Your task to perform on an android device: open app "Walmart Shopping & Grocery" (install if not already installed) and enter user name: "Hans@icloud.com" and password: "executing" Image 0: 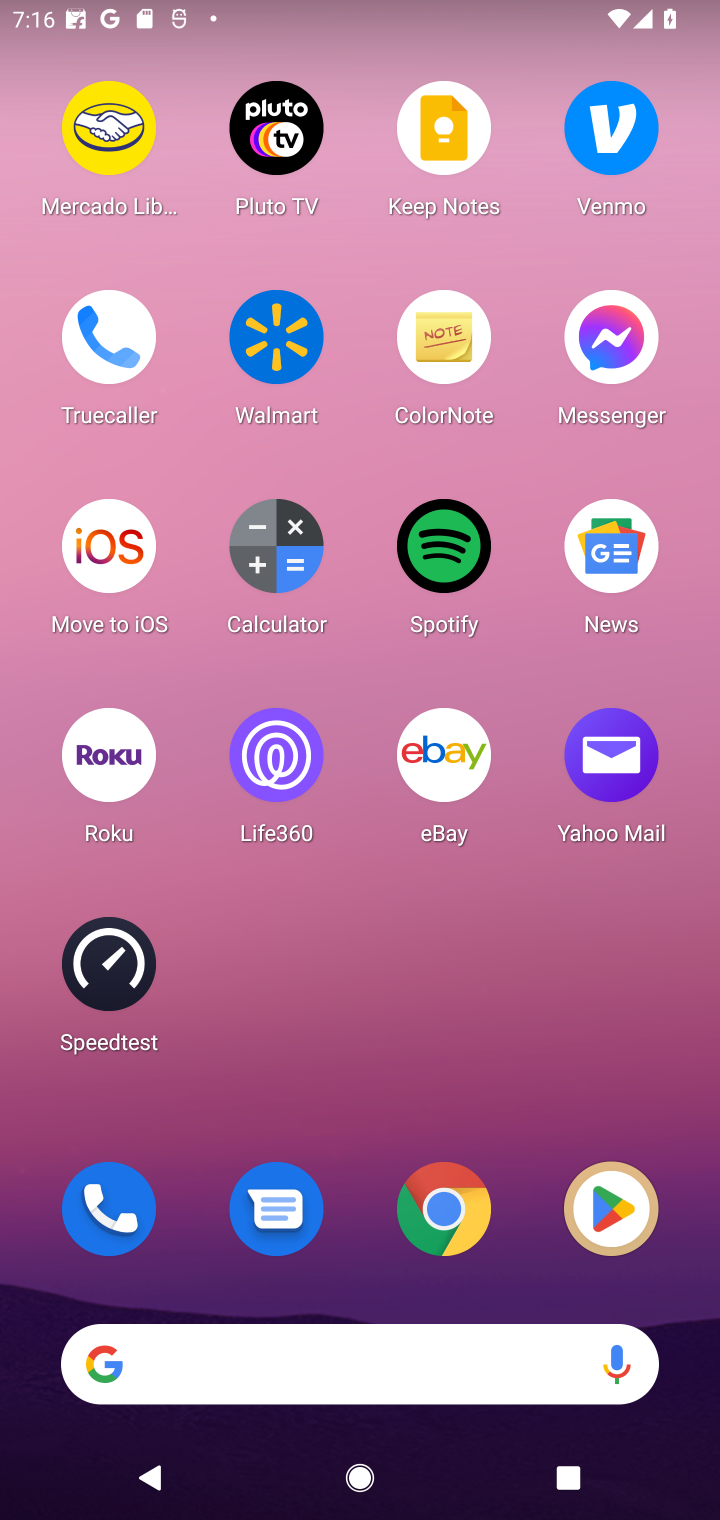
Step 0: click (630, 1256)
Your task to perform on an android device: open app "Walmart Shopping & Grocery" (install if not already installed) and enter user name: "Hans@icloud.com" and password: "executing" Image 1: 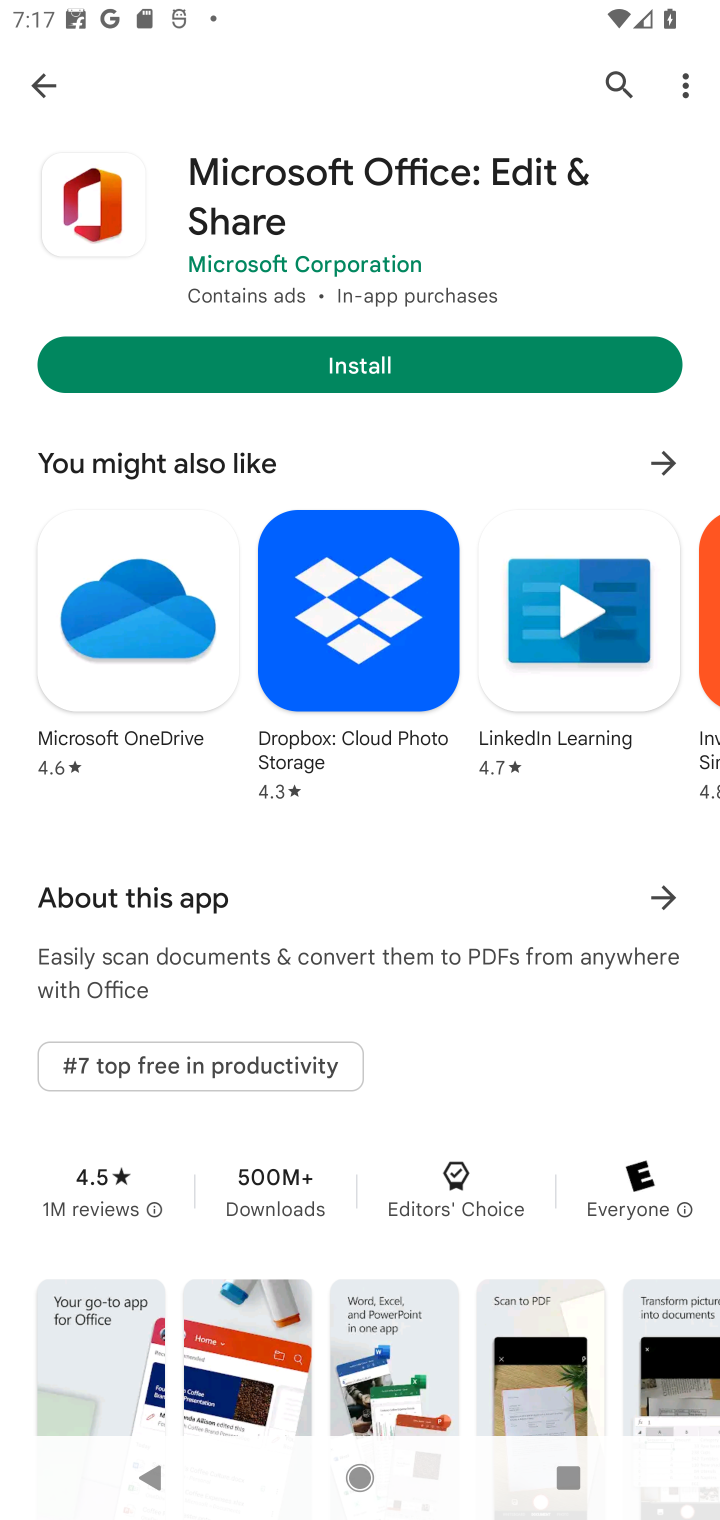
Step 1: click (430, 383)
Your task to perform on an android device: open app "Walmart Shopping & Grocery" (install if not already installed) and enter user name: "Hans@icloud.com" and password: "executing" Image 2: 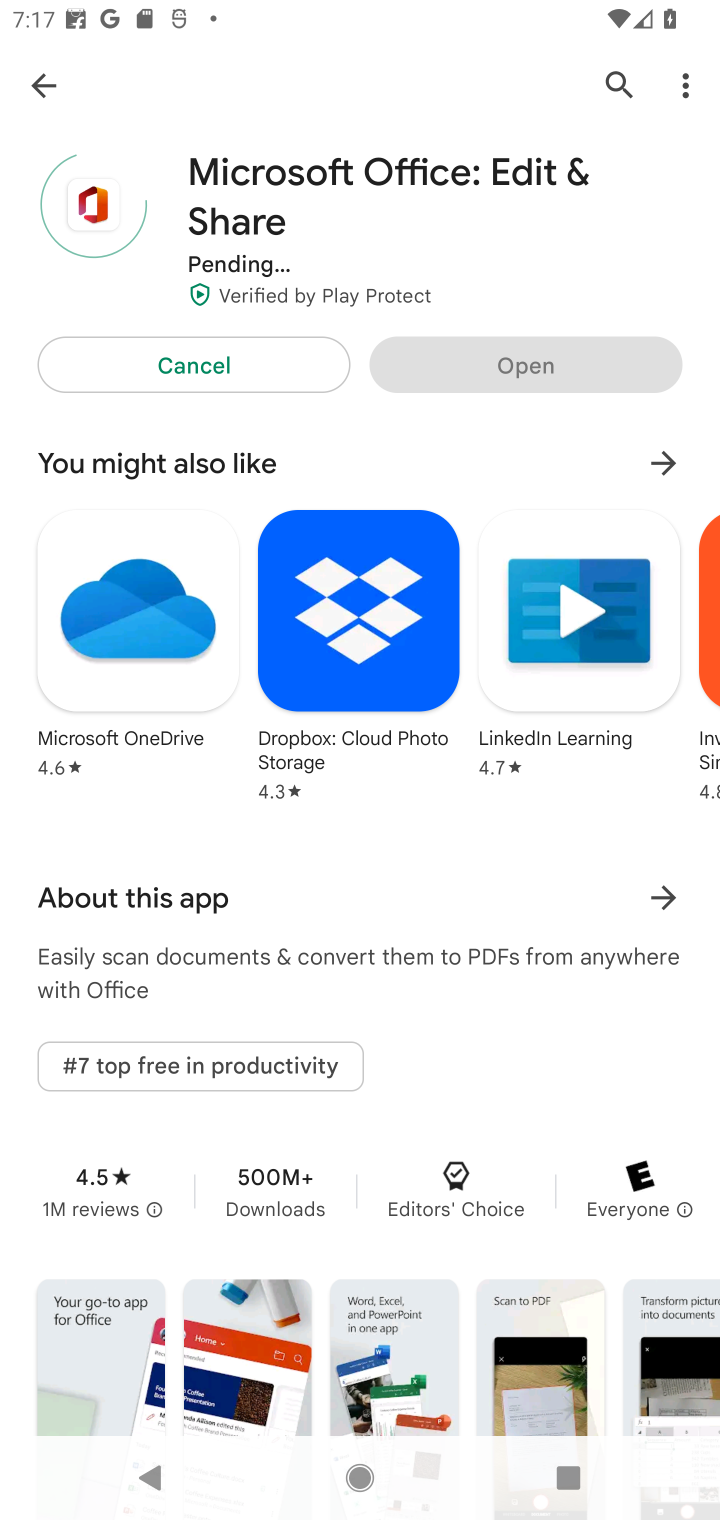
Step 2: click (621, 77)
Your task to perform on an android device: open app "Walmart Shopping & Grocery" (install if not already installed) and enter user name: "Hans@icloud.com" and password: "executing" Image 3: 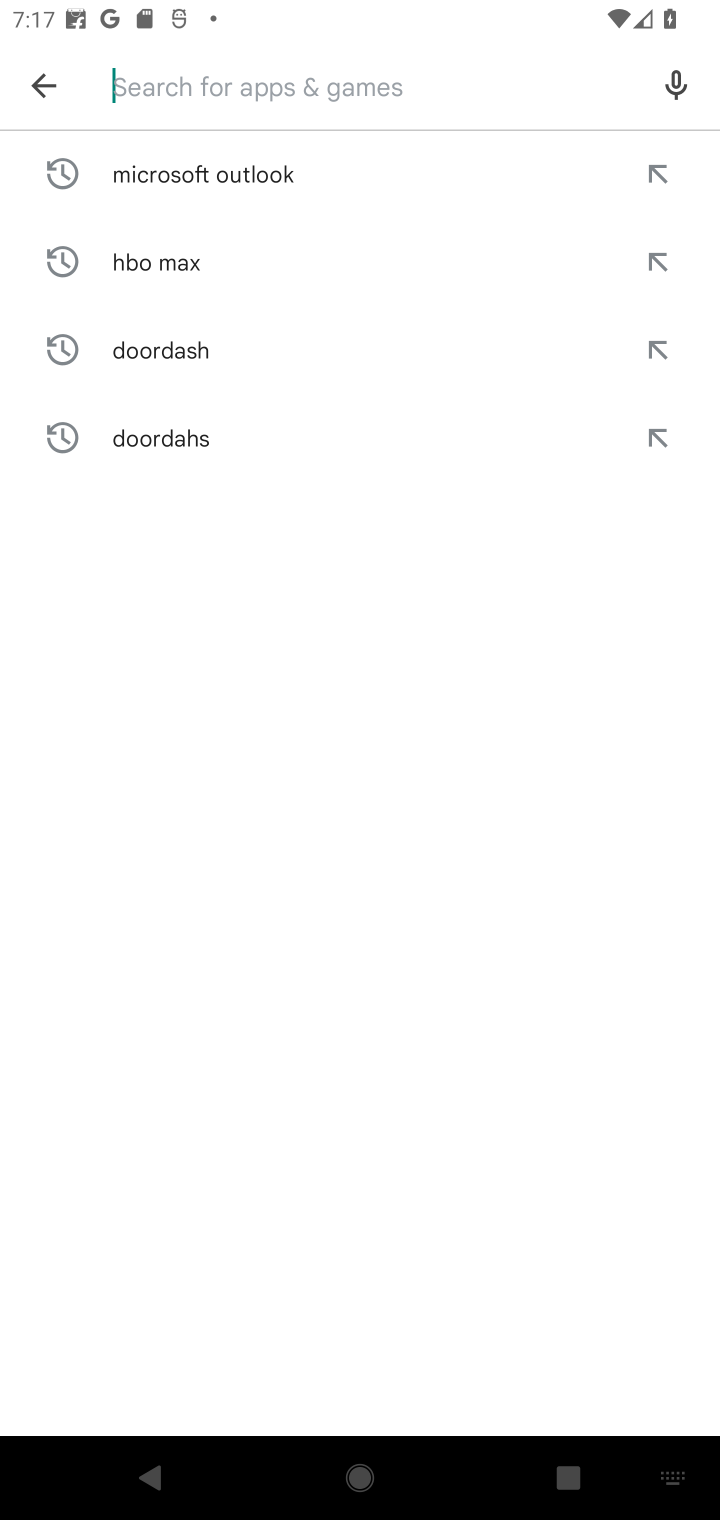
Step 3: type "walmart"
Your task to perform on an android device: open app "Walmart Shopping & Grocery" (install if not already installed) and enter user name: "Hans@icloud.com" and password: "executing" Image 4: 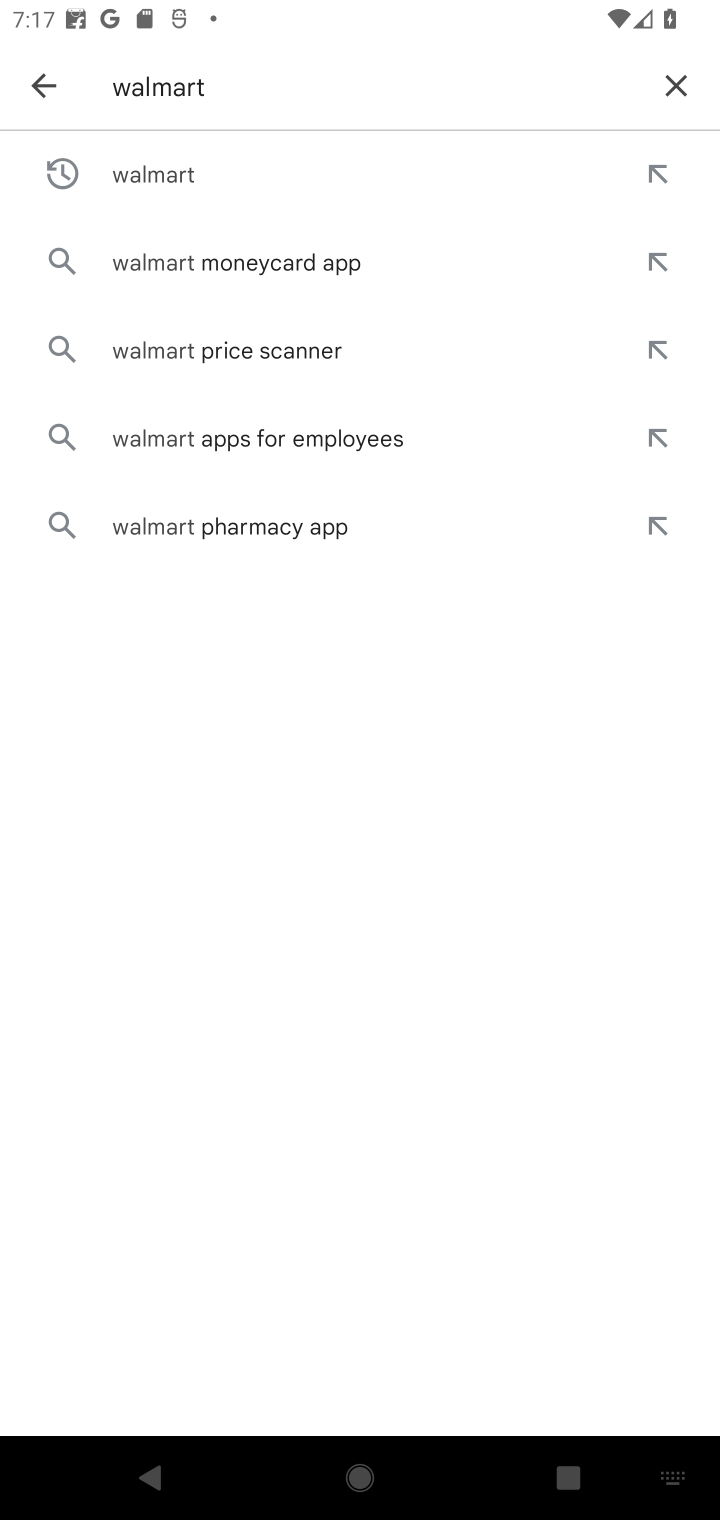
Step 4: click (232, 192)
Your task to perform on an android device: open app "Walmart Shopping & Grocery" (install if not already installed) and enter user name: "Hans@icloud.com" and password: "executing" Image 5: 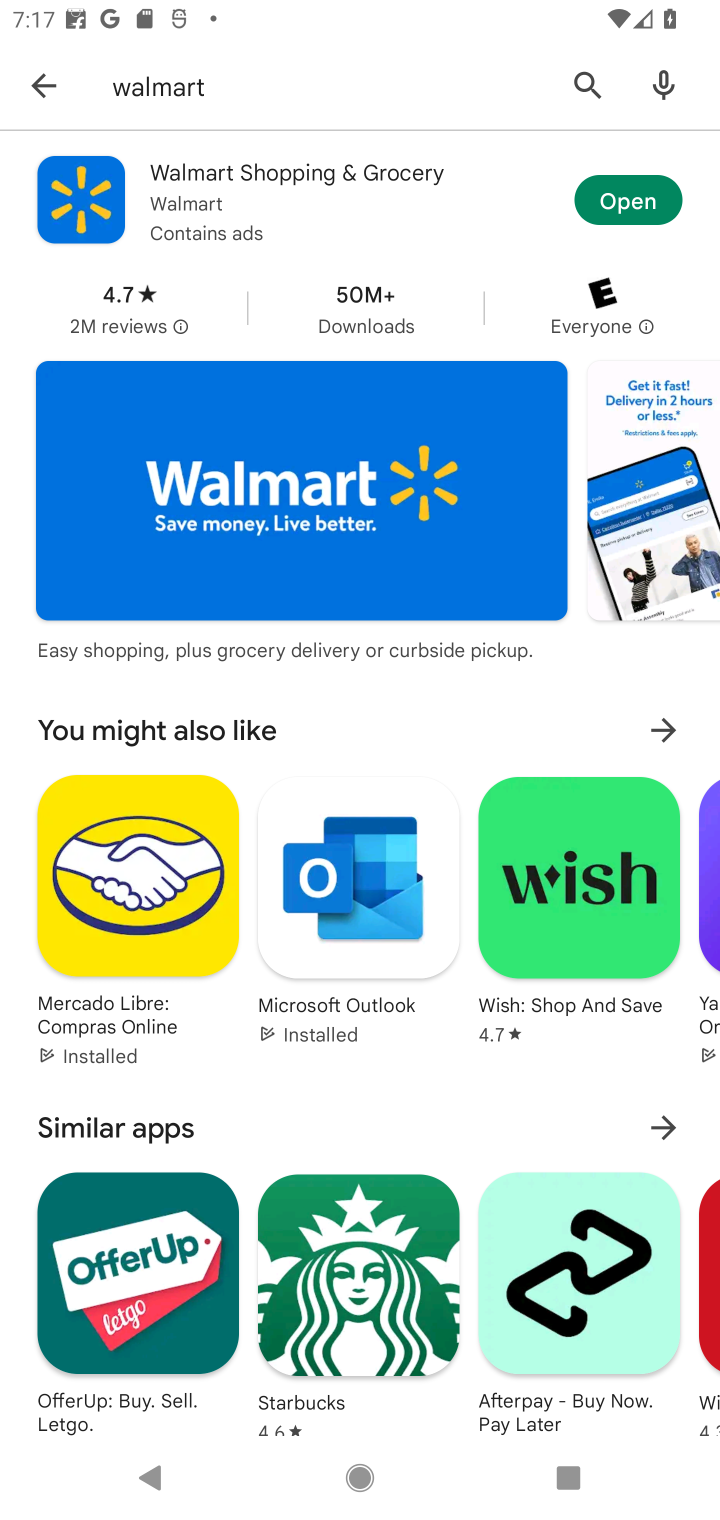
Step 5: click (647, 227)
Your task to perform on an android device: open app "Walmart Shopping & Grocery" (install if not already installed) and enter user name: "Hans@icloud.com" and password: "executing" Image 6: 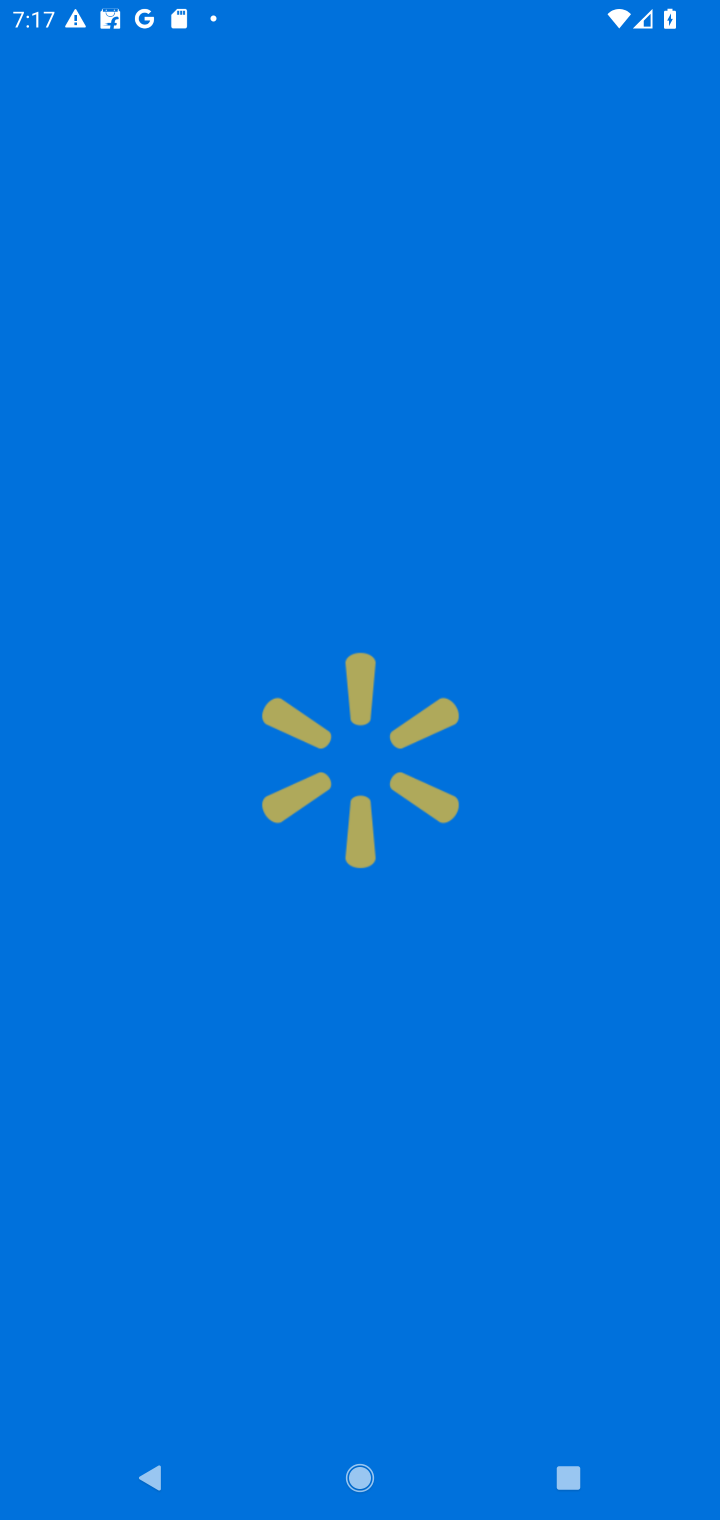
Step 6: task complete